Your task to perform on an android device: Search for "beats solo 3" on amazon, select the first entry, add it to the cart, then select checkout. Image 0: 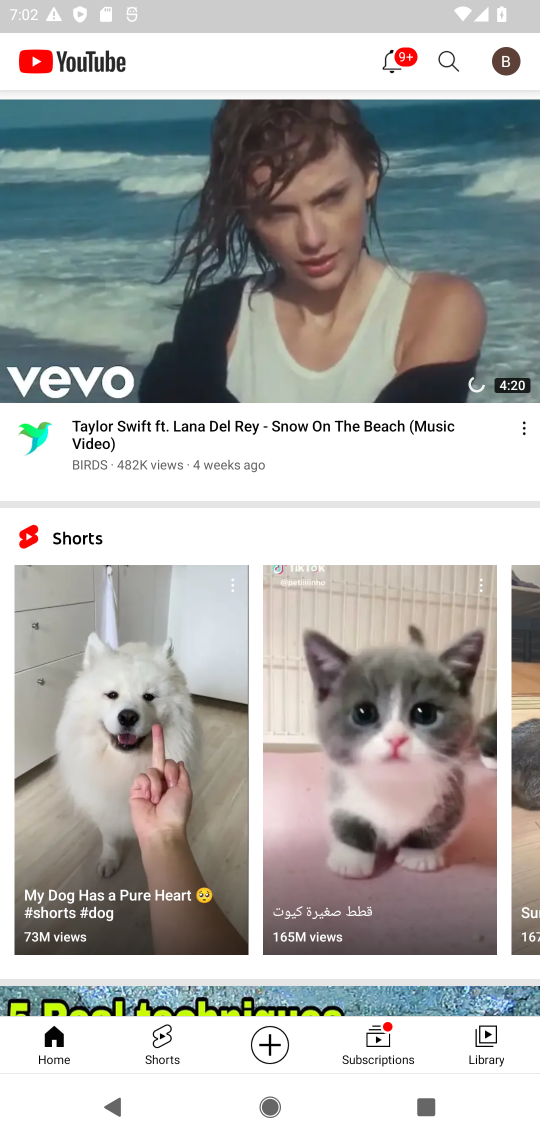
Step 0: press home button
Your task to perform on an android device: Search for "beats solo 3" on amazon, select the first entry, add it to the cart, then select checkout. Image 1: 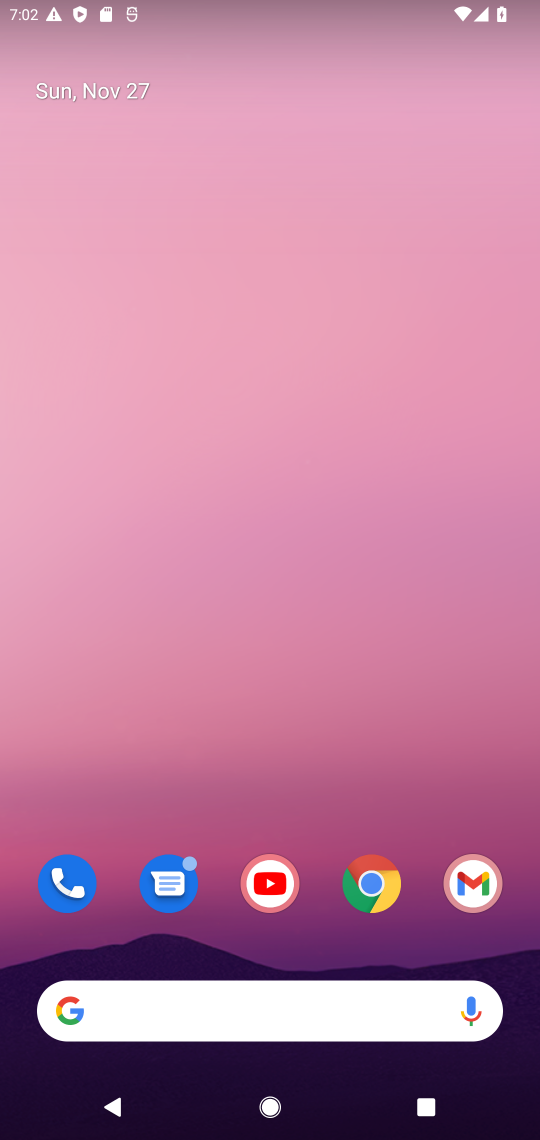
Step 1: click (374, 880)
Your task to perform on an android device: Search for "beats solo 3" on amazon, select the first entry, add it to the cart, then select checkout. Image 2: 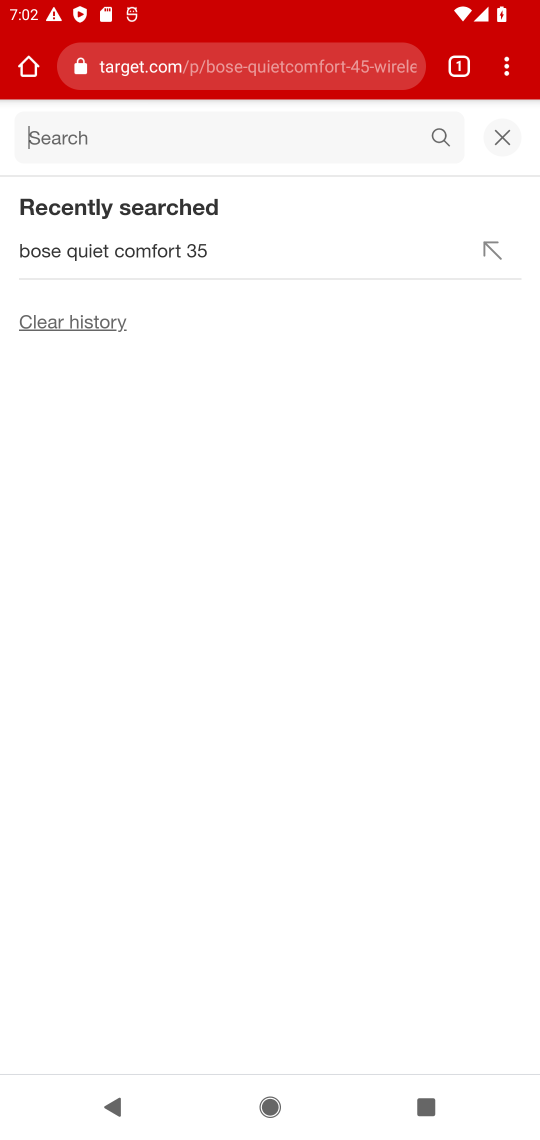
Step 2: click (288, 80)
Your task to perform on an android device: Search for "beats solo 3" on amazon, select the first entry, add it to the cart, then select checkout. Image 3: 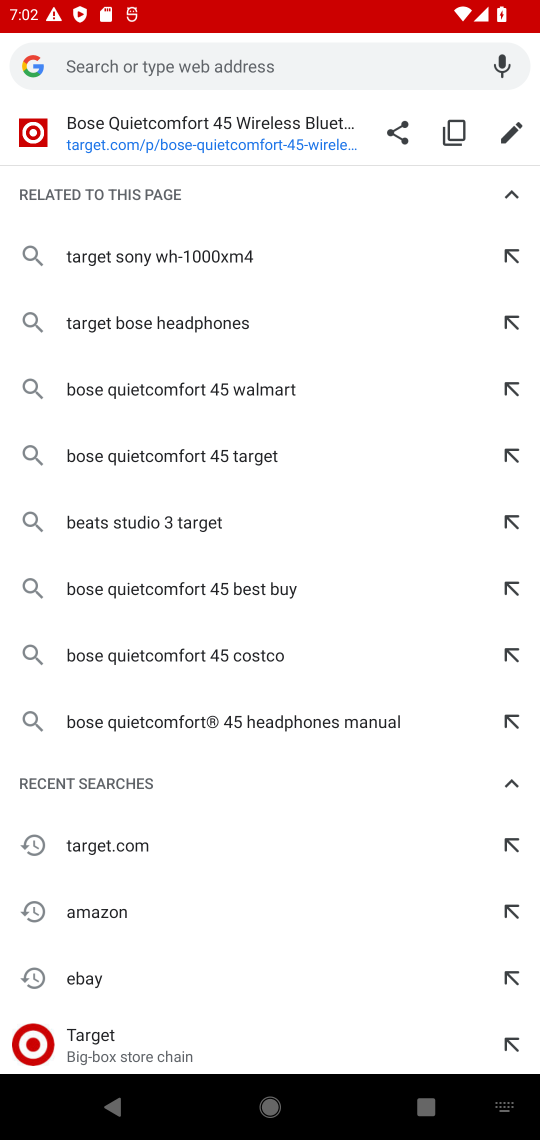
Step 3: type "amazon"
Your task to perform on an android device: Search for "beats solo 3" on amazon, select the first entry, add it to the cart, then select checkout. Image 4: 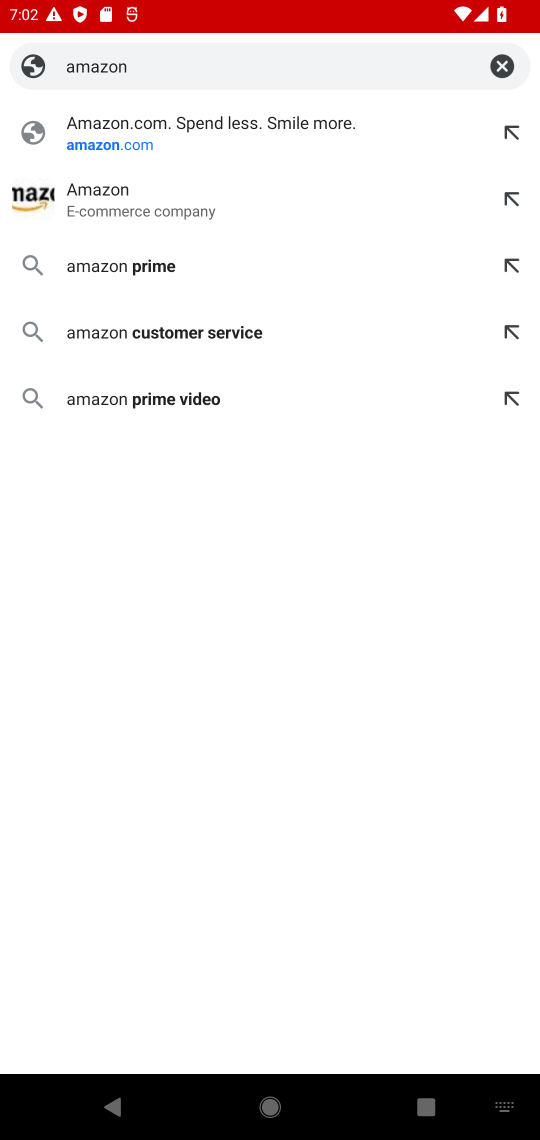
Step 4: click (142, 140)
Your task to perform on an android device: Search for "beats solo 3" on amazon, select the first entry, add it to the cart, then select checkout. Image 5: 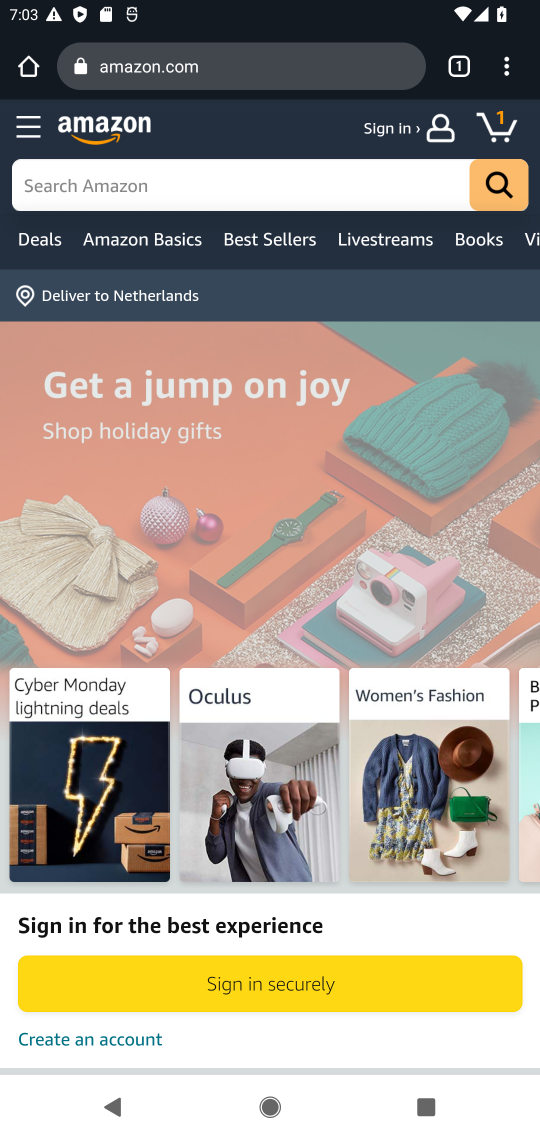
Step 5: click (275, 199)
Your task to perform on an android device: Search for "beats solo 3" on amazon, select the first entry, add it to the cart, then select checkout. Image 6: 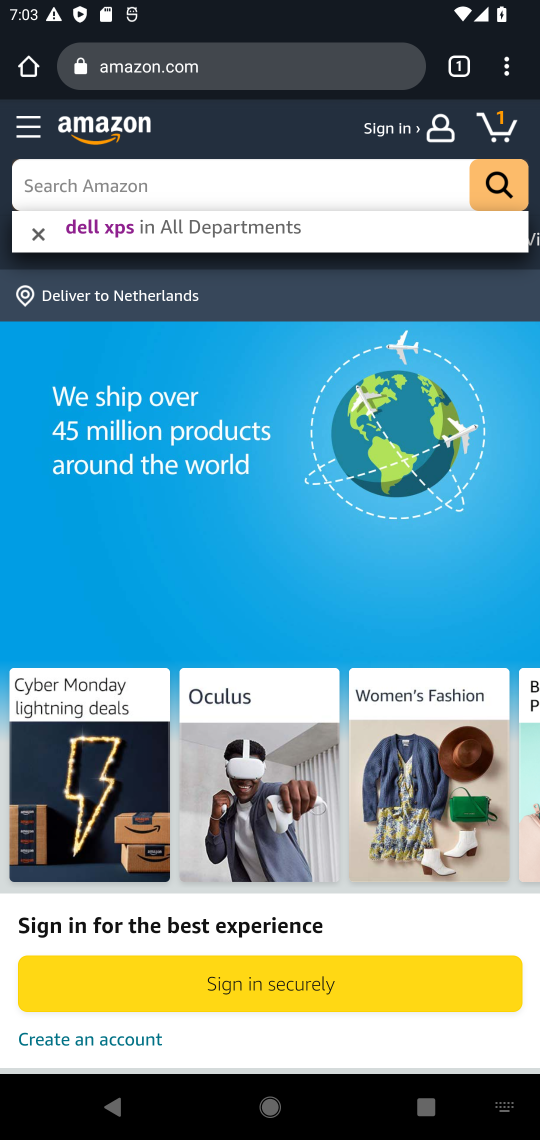
Step 6: type "beat solo 3 "
Your task to perform on an android device: Search for "beats solo 3" on amazon, select the first entry, add it to the cart, then select checkout. Image 7: 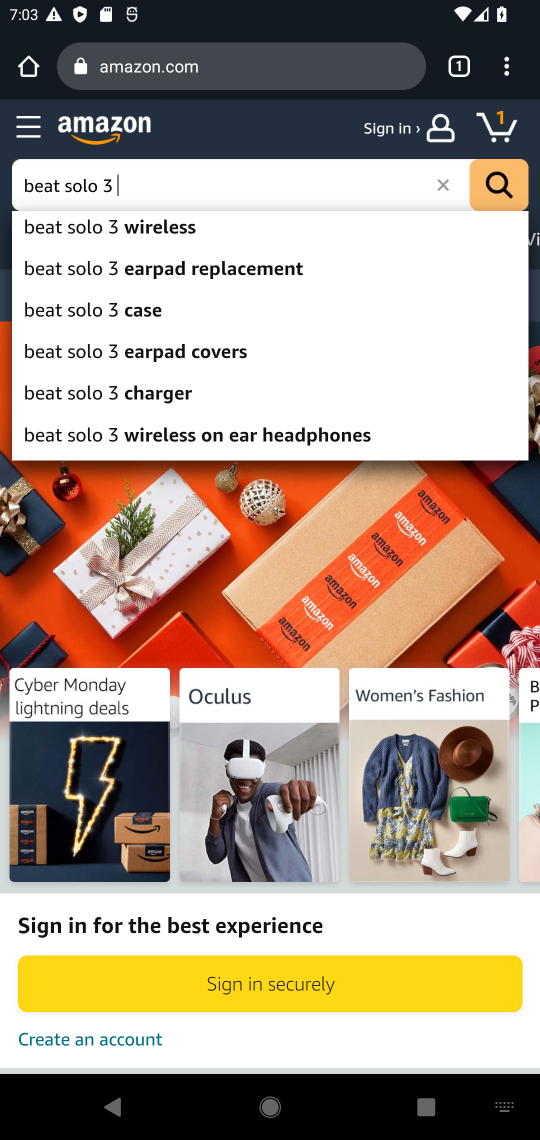
Step 7: click (93, 235)
Your task to perform on an android device: Search for "beats solo 3" on amazon, select the first entry, add it to the cart, then select checkout. Image 8: 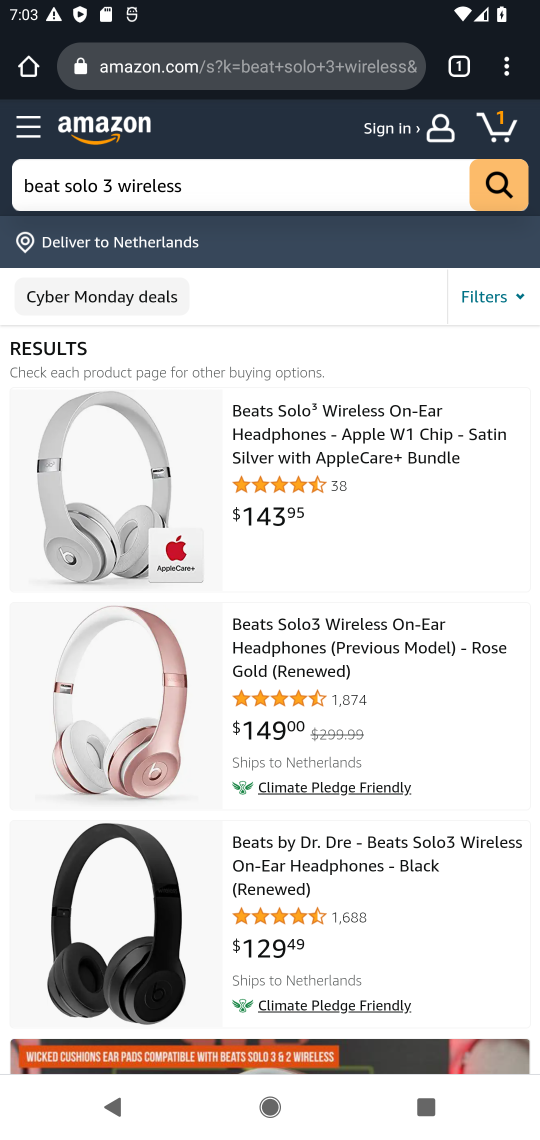
Step 8: click (330, 449)
Your task to perform on an android device: Search for "beats solo 3" on amazon, select the first entry, add it to the cart, then select checkout. Image 9: 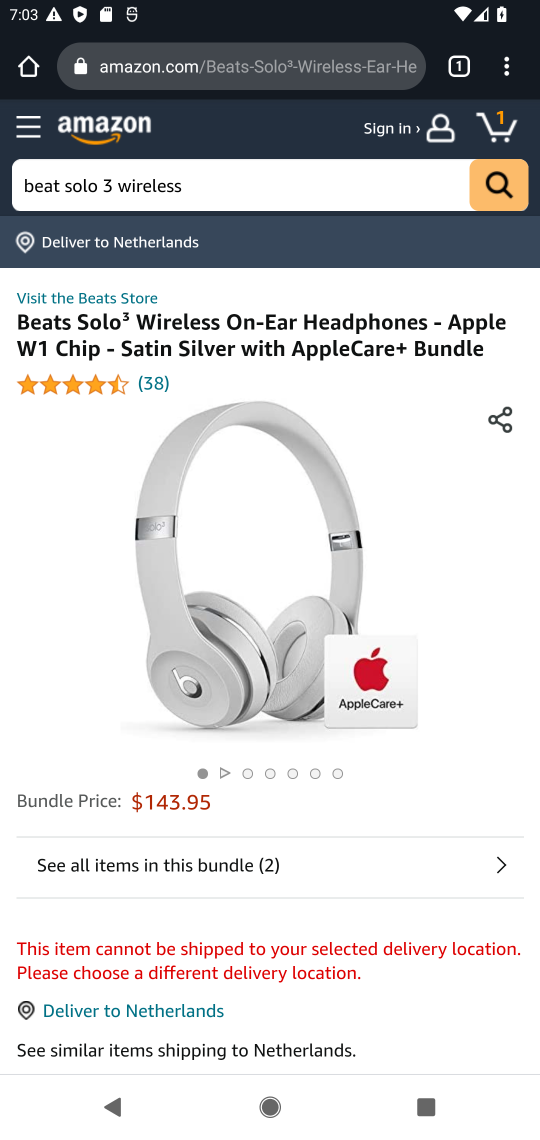
Step 9: drag from (301, 938) to (321, 263)
Your task to perform on an android device: Search for "beats solo 3" on amazon, select the first entry, add it to the cart, then select checkout. Image 10: 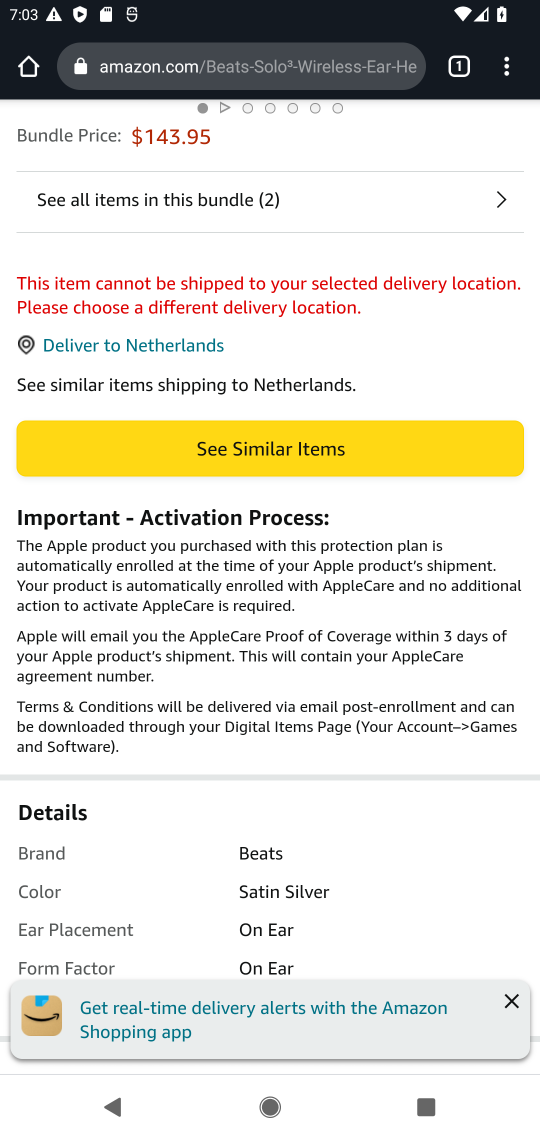
Step 10: press back button
Your task to perform on an android device: Search for "beats solo 3" on amazon, select the first entry, add it to the cart, then select checkout. Image 11: 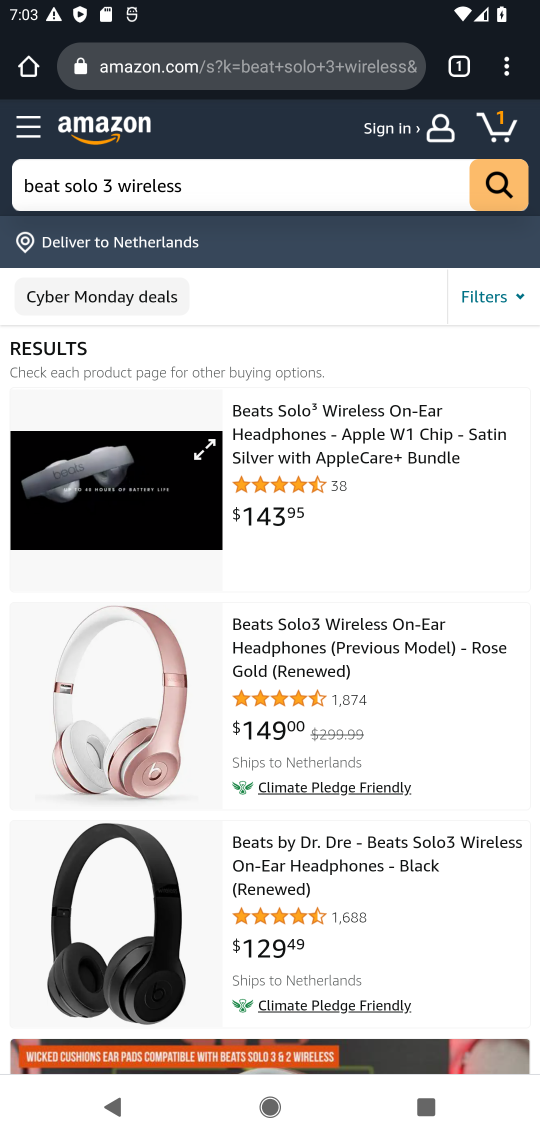
Step 11: click (281, 634)
Your task to perform on an android device: Search for "beats solo 3" on amazon, select the first entry, add it to the cart, then select checkout. Image 12: 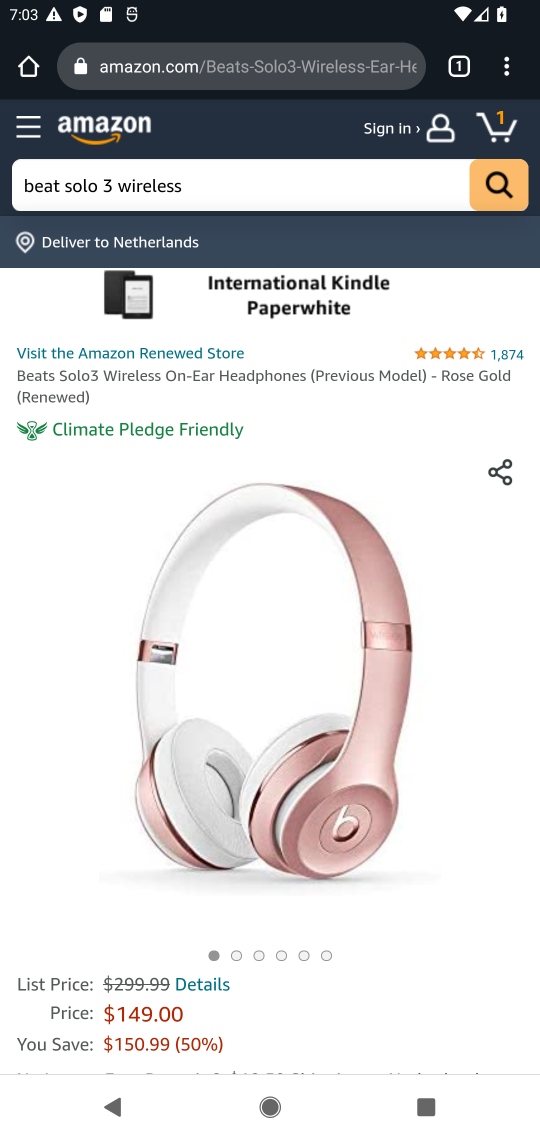
Step 12: drag from (256, 978) to (245, 560)
Your task to perform on an android device: Search for "beats solo 3" on amazon, select the first entry, add it to the cart, then select checkout. Image 13: 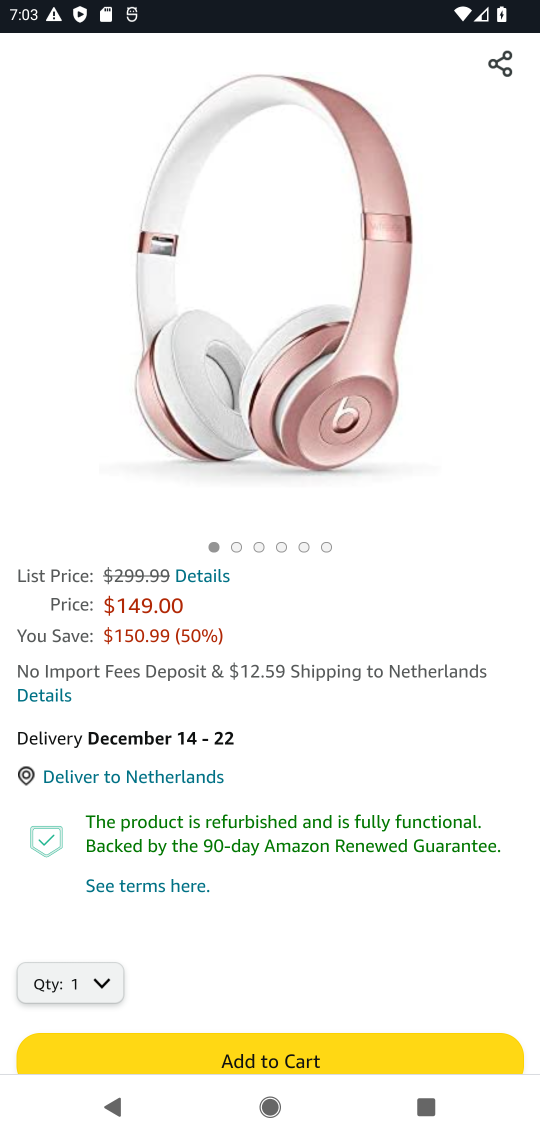
Step 13: drag from (297, 981) to (287, 701)
Your task to perform on an android device: Search for "beats solo 3" on amazon, select the first entry, add it to the cart, then select checkout. Image 14: 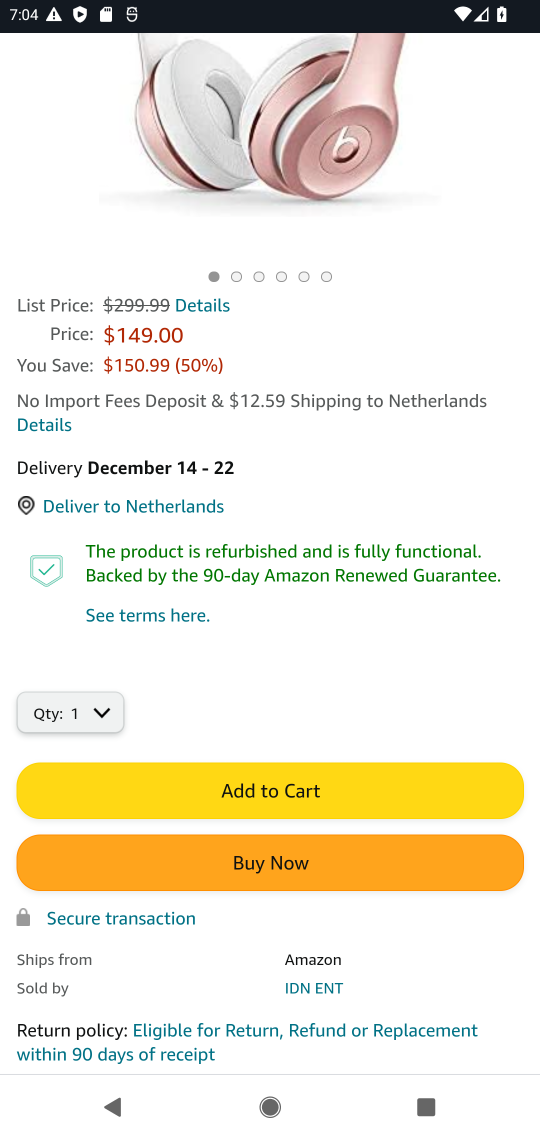
Step 14: click (295, 777)
Your task to perform on an android device: Search for "beats solo 3" on amazon, select the first entry, add it to the cart, then select checkout. Image 15: 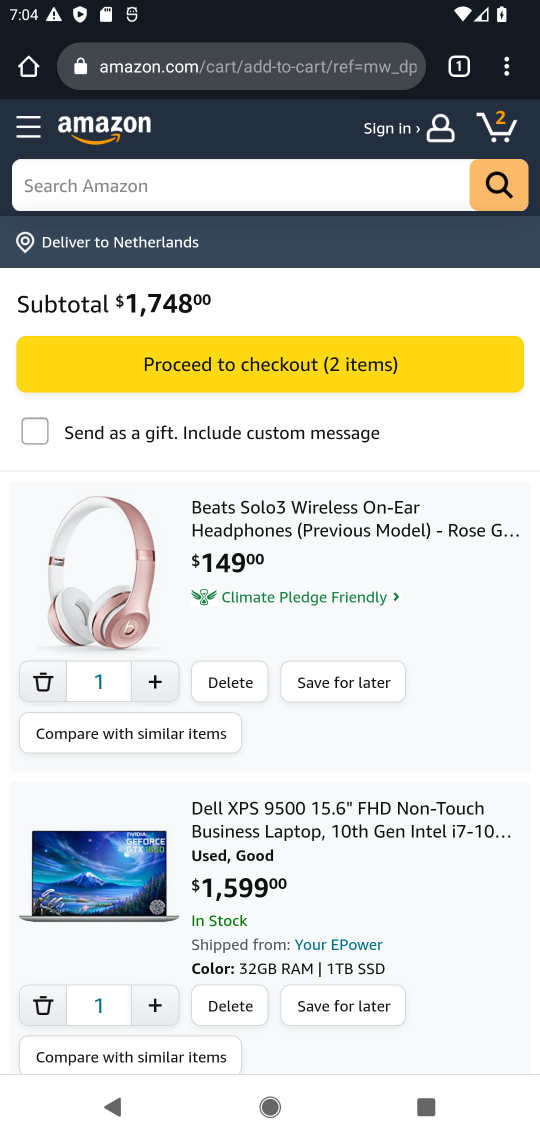
Step 15: click (269, 368)
Your task to perform on an android device: Search for "beats solo 3" on amazon, select the first entry, add it to the cart, then select checkout. Image 16: 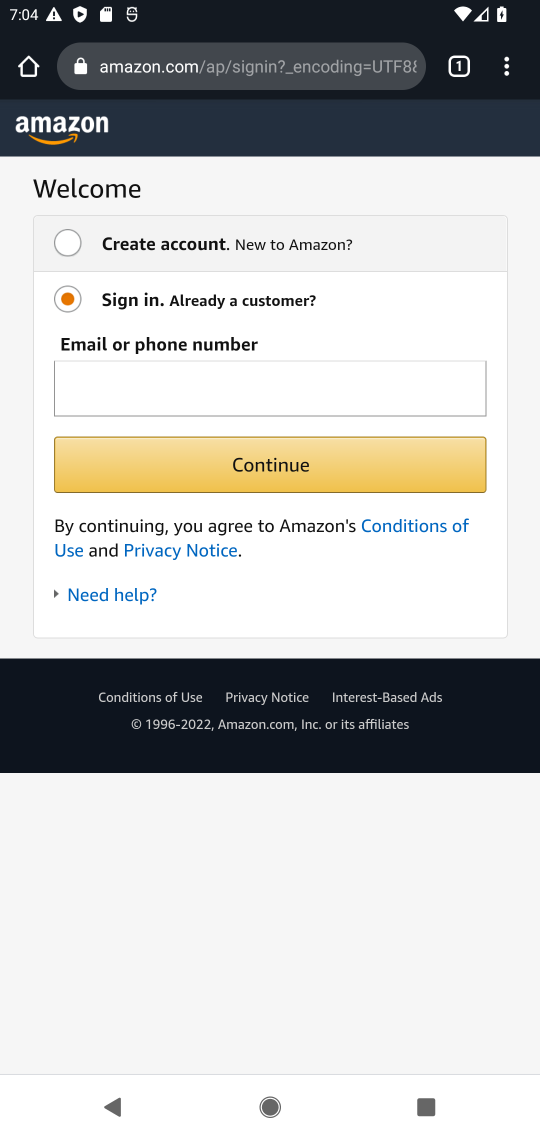
Step 16: task complete